Your task to perform on an android device: change the clock display to digital Image 0: 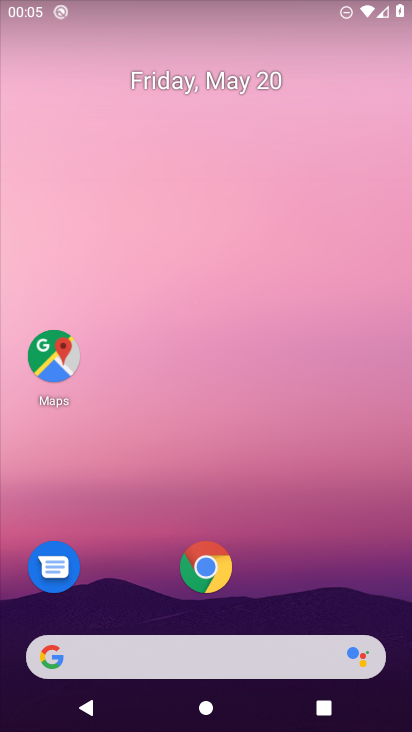
Step 0: press home button
Your task to perform on an android device: change the clock display to digital Image 1: 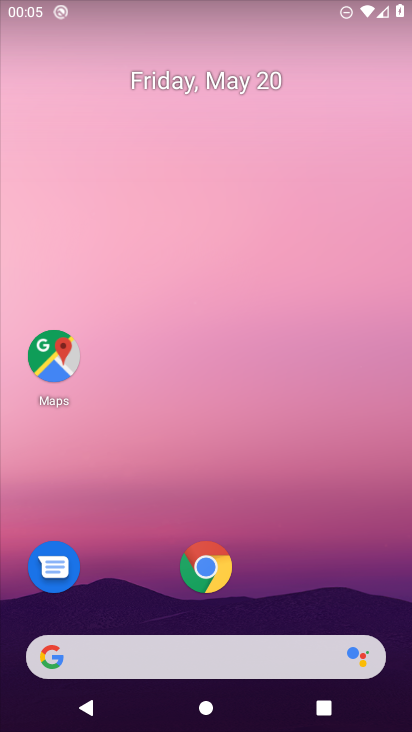
Step 1: drag from (252, 600) to (354, 31)
Your task to perform on an android device: change the clock display to digital Image 2: 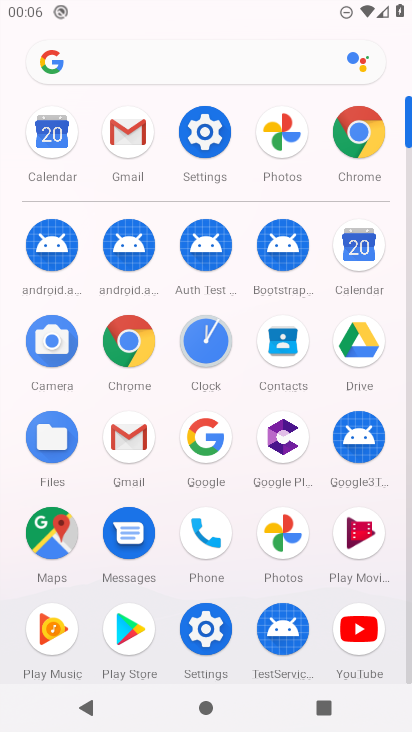
Step 2: click (204, 331)
Your task to perform on an android device: change the clock display to digital Image 3: 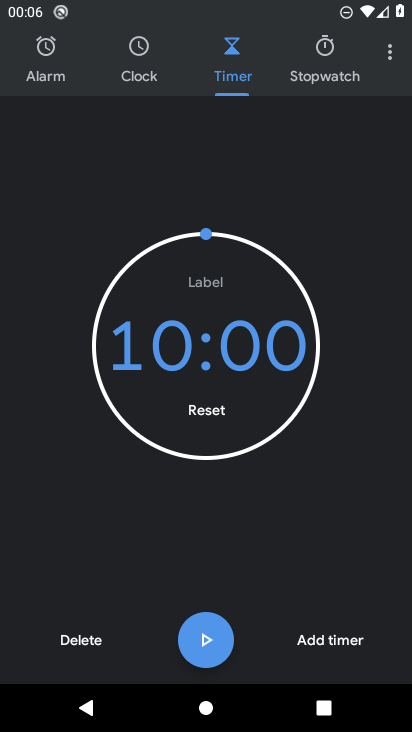
Step 3: click (389, 45)
Your task to perform on an android device: change the clock display to digital Image 4: 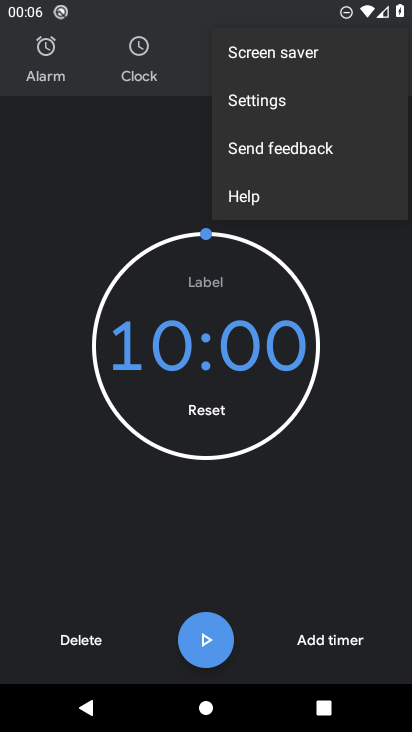
Step 4: click (293, 100)
Your task to perform on an android device: change the clock display to digital Image 5: 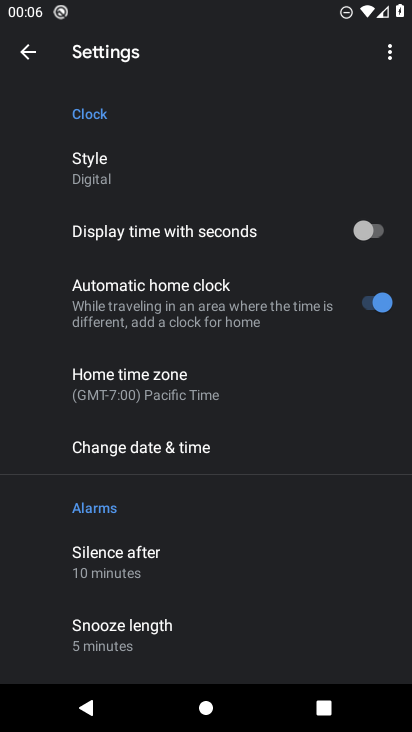
Step 5: task complete